Your task to perform on an android device: turn off notifications in google photos Image 0: 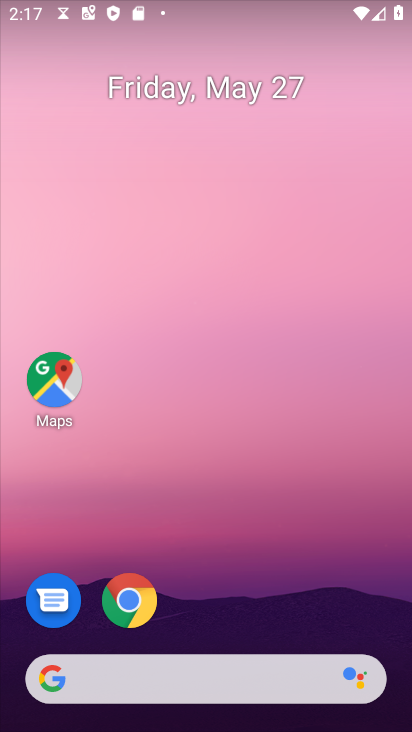
Step 0: drag from (282, 583) to (218, 45)
Your task to perform on an android device: turn off notifications in google photos Image 1: 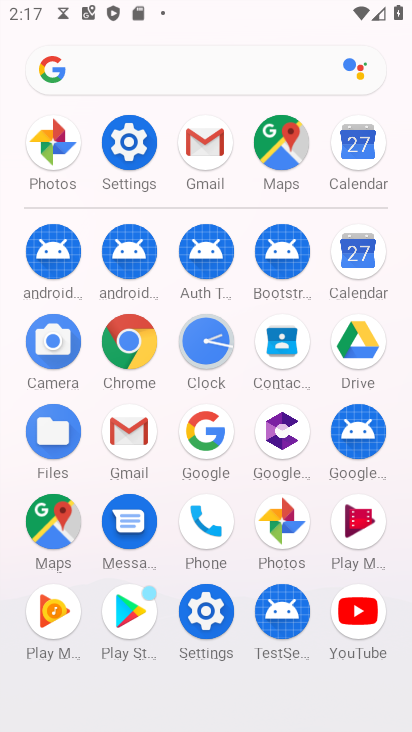
Step 1: click (270, 510)
Your task to perform on an android device: turn off notifications in google photos Image 2: 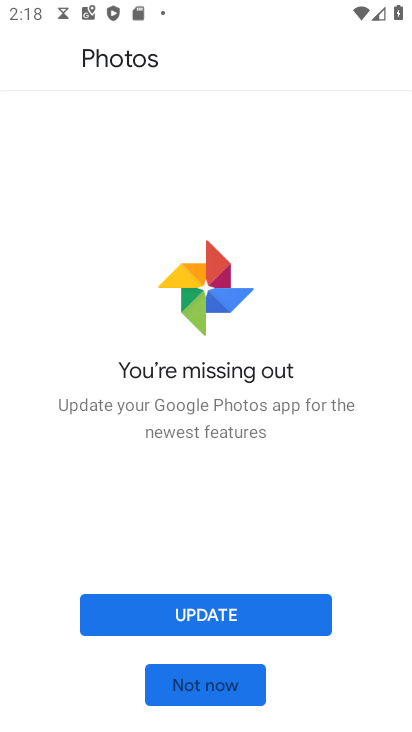
Step 2: click (227, 615)
Your task to perform on an android device: turn off notifications in google photos Image 3: 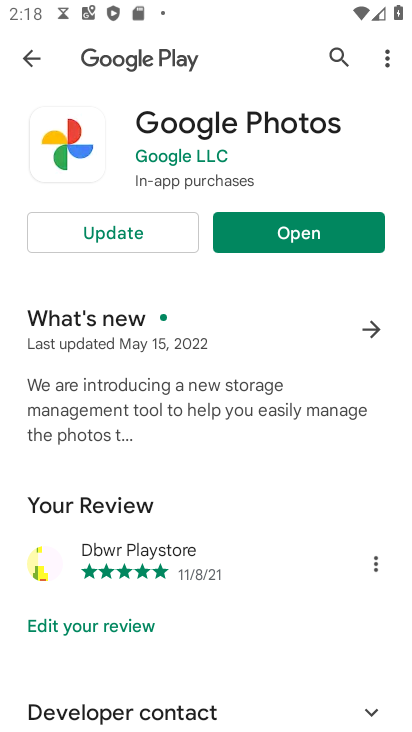
Step 3: click (134, 230)
Your task to perform on an android device: turn off notifications in google photos Image 4: 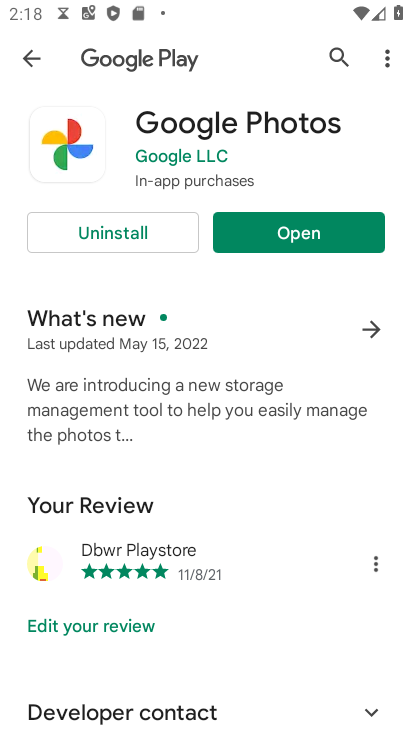
Step 4: click (291, 217)
Your task to perform on an android device: turn off notifications in google photos Image 5: 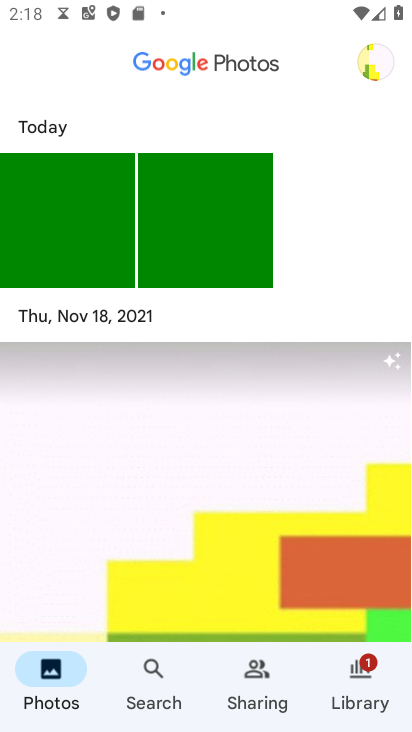
Step 5: click (373, 63)
Your task to perform on an android device: turn off notifications in google photos Image 6: 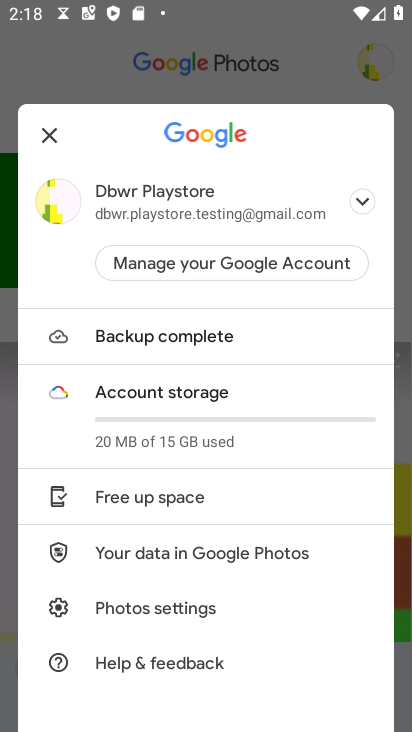
Step 6: click (172, 599)
Your task to perform on an android device: turn off notifications in google photos Image 7: 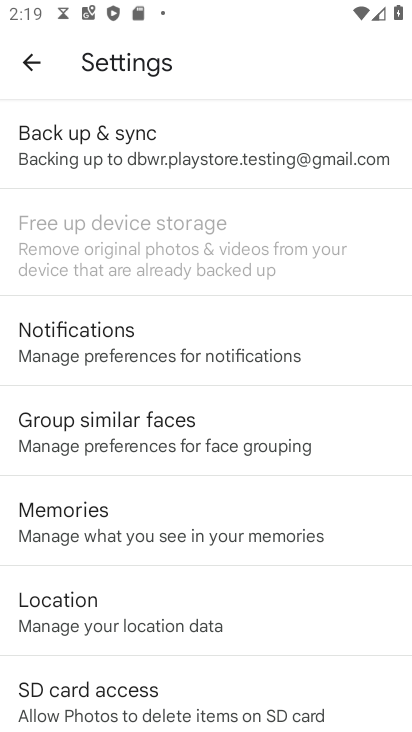
Step 7: drag from (204, 565) to (205, 151)
Your task to perform on an android device: turn off notifications in google photos Image 8: 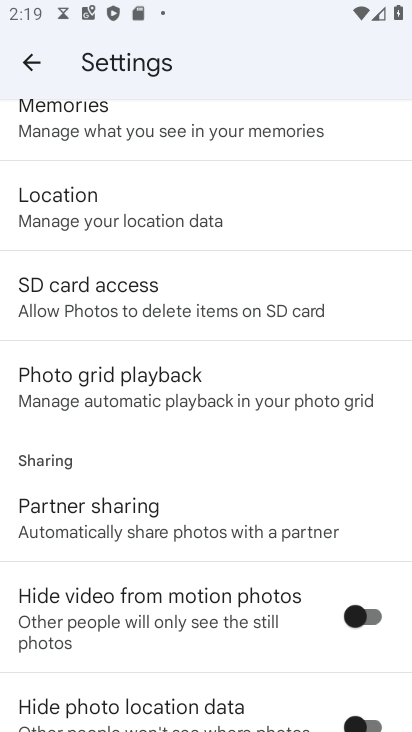
Step 8: drag from (281, 121) to (230, 604)
Your task to perform on an android device: turn off notifications in google photos Image 9: 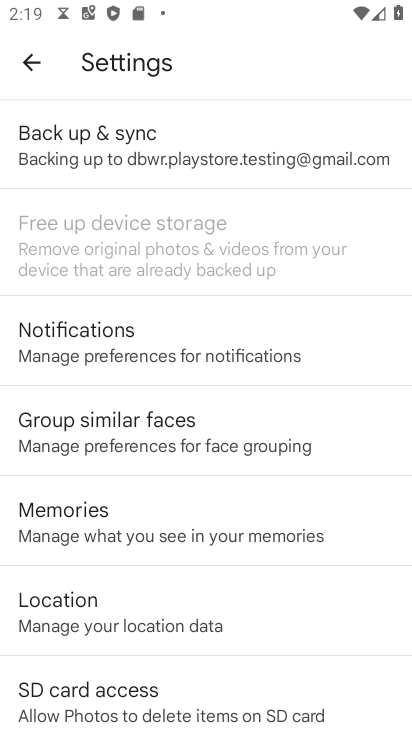
Step 9: click (158, 308)
Your task to perform on an android device: turn off notifications in google photos Image 10: 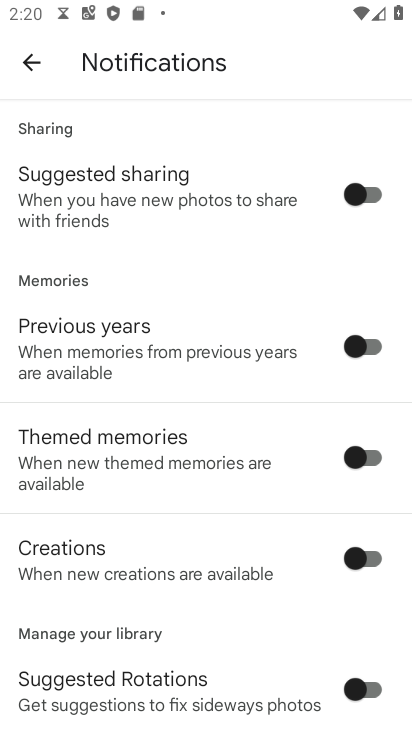
Step 10: drag from (156, 615) to (166, 162)
Your task to perform on an android device: turn off notifications in google photos Image 11: 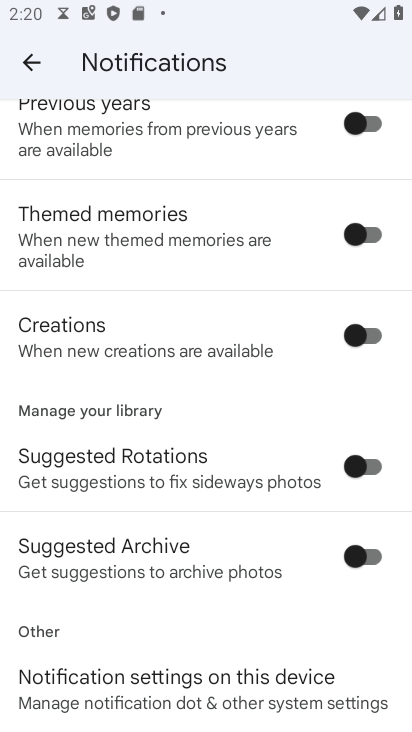
Step 11: click (203, 677)
Your task to perform on an android device: turn off notifications in google photos Image 12: 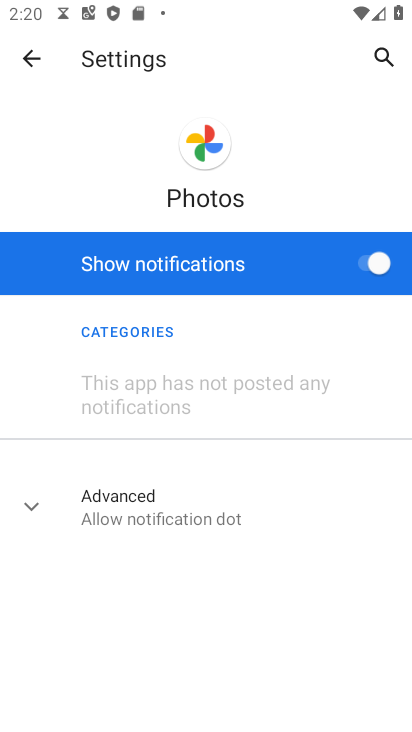
Step 12: click (372, 270)
Your task to perform on an android device: turn off notifications in google photos Image 13: 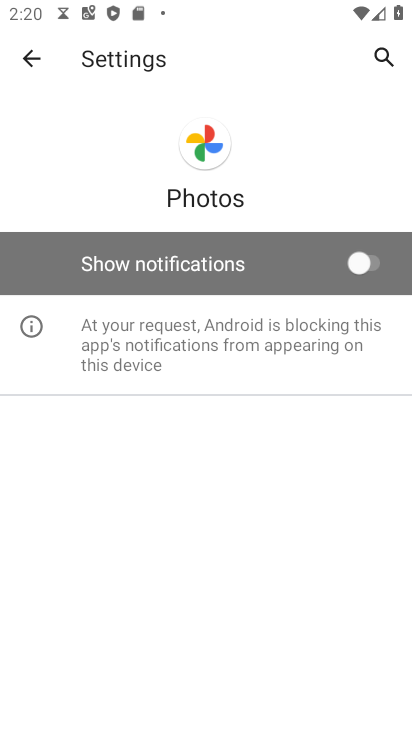
Step 13: task complete